Your task to perform on an android device: turn pop-ups on in chrome Image 0: 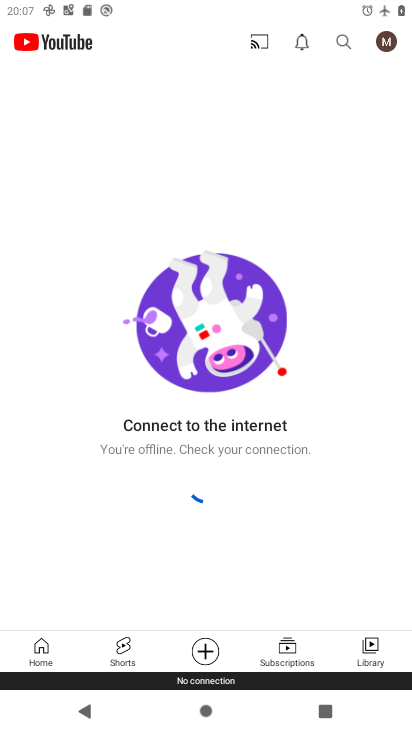
Step 0: press home button
Your task to perform on an android device: turn pop-ups on in chrome Image 1: 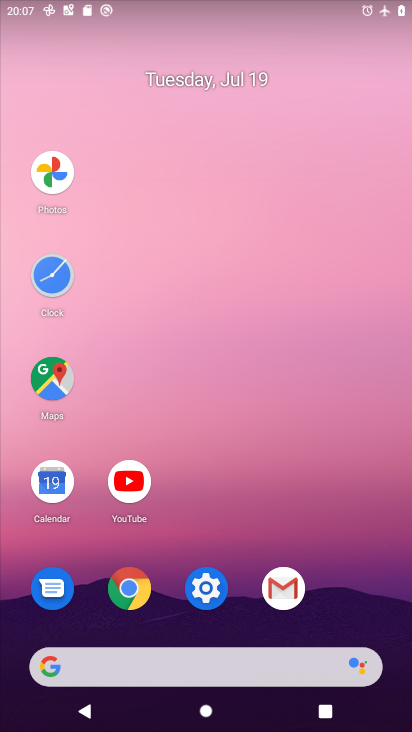
Step 1: click (133, 587)
Your task to perform on an android device: turn pop-ups on in chrome Image 2: 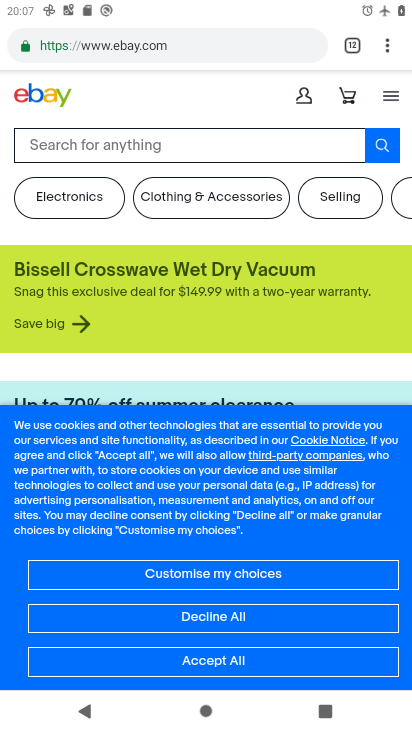
Step 2: click (388, 42)
Your task to perform on an android device: turn pop-ups on in chrome Image 3: 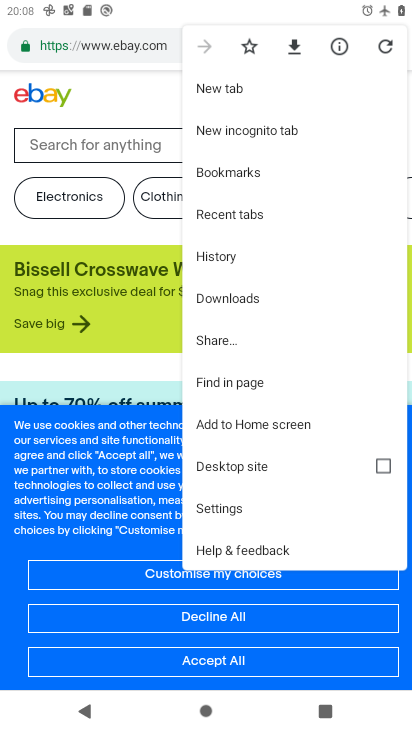
Step 3: click (228, 505)
Your task to perform on an android device: turn pop-ups on in chrome Image 4: 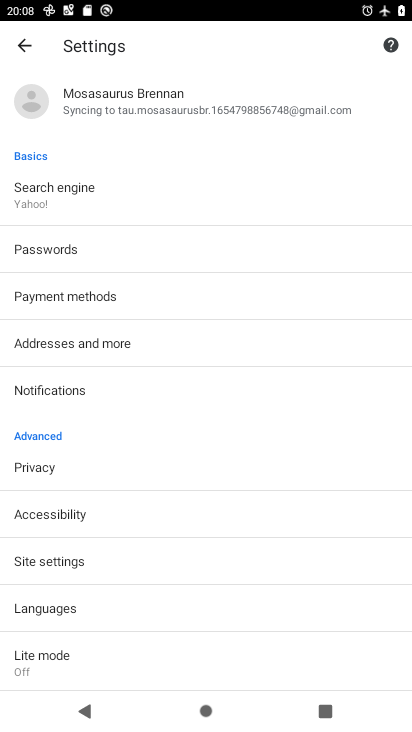
Step 4: click (50, 562)
Your task to perform on an android device: turn pop-ups on in chrome Image 5: 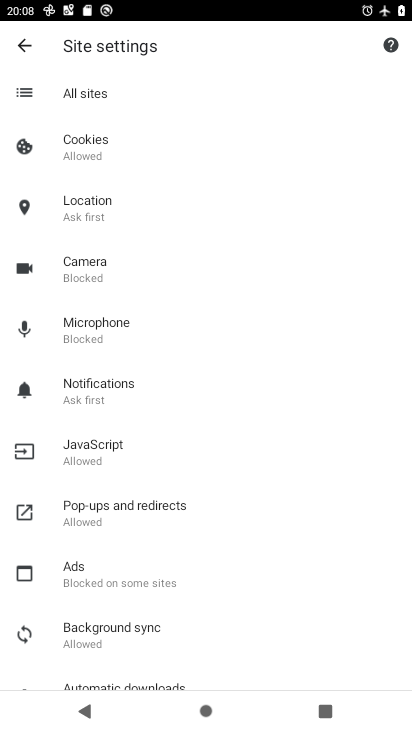
Step 5: click (116, 495)
Your task to perform on an android device: turn pop-ups on in chrome Image 6: 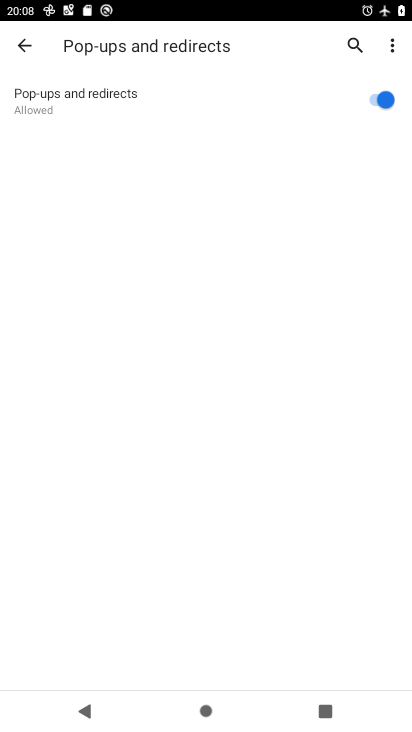
Step 6: task complete